Your task to perform on an android device: View the shopping cart on costco.com. Add usb-a to usb-b to the cart on costco.com Image 0: 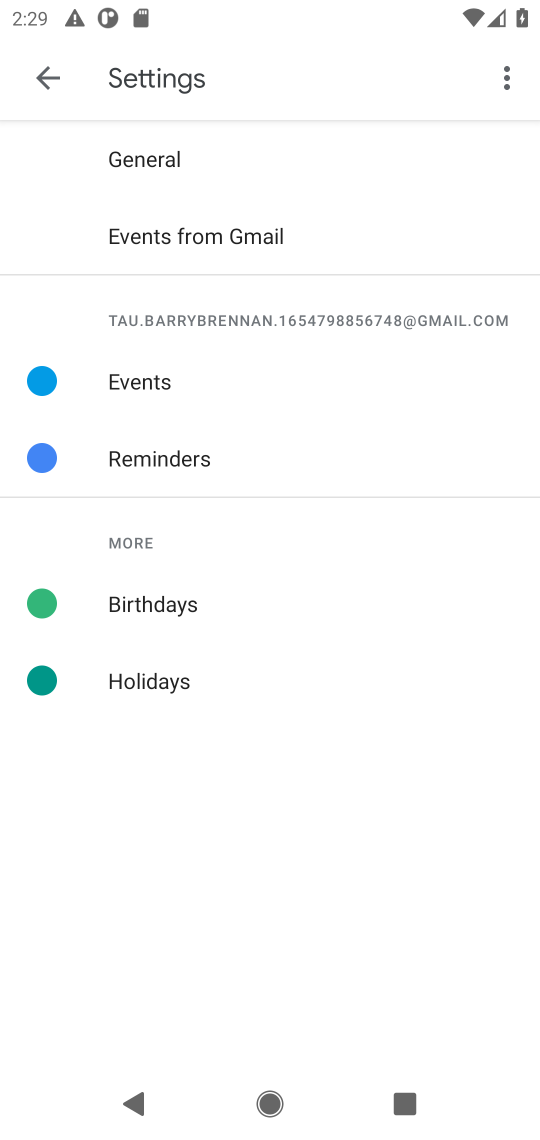
Step 0: press home button
Your task to perform on an android device: View the shopping cart on costco.com. Add usb-a to usb-b to the cart on costco.com Image 1: 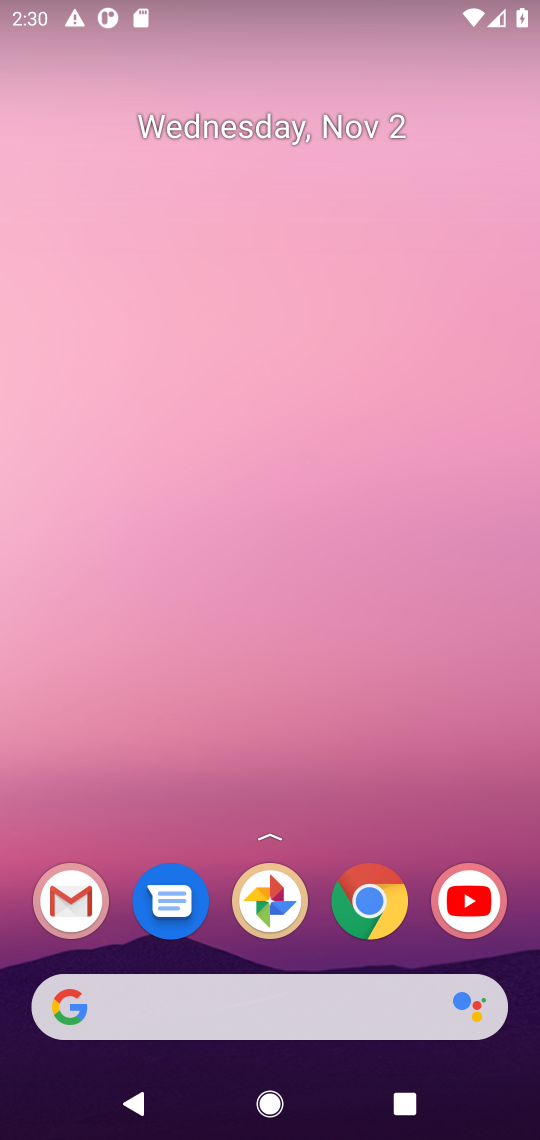
Step 1: drag from (322, 286) to (317, 141)
Your task to perform on an android device: View the shopping cart on costco.com. Add usb-a to usb-b to the cart on costco.com Image 2: 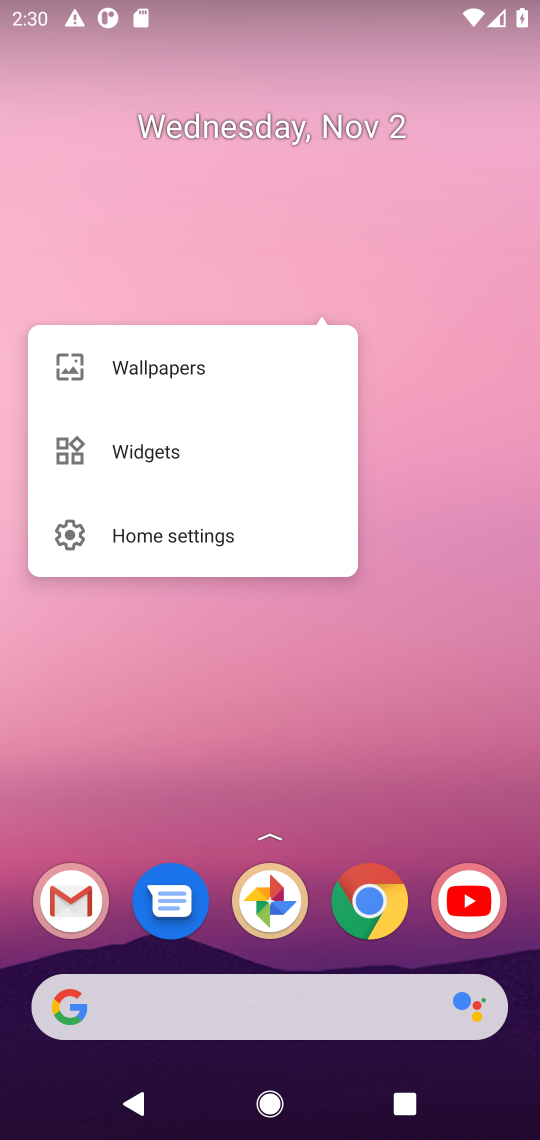
Step 2: drag from (315, 809) to (342, 86)
Your task to perform on an android device: View the shopping cart on costco.com. Add usb-a to usb-b to the cart on costco.com Image 3: 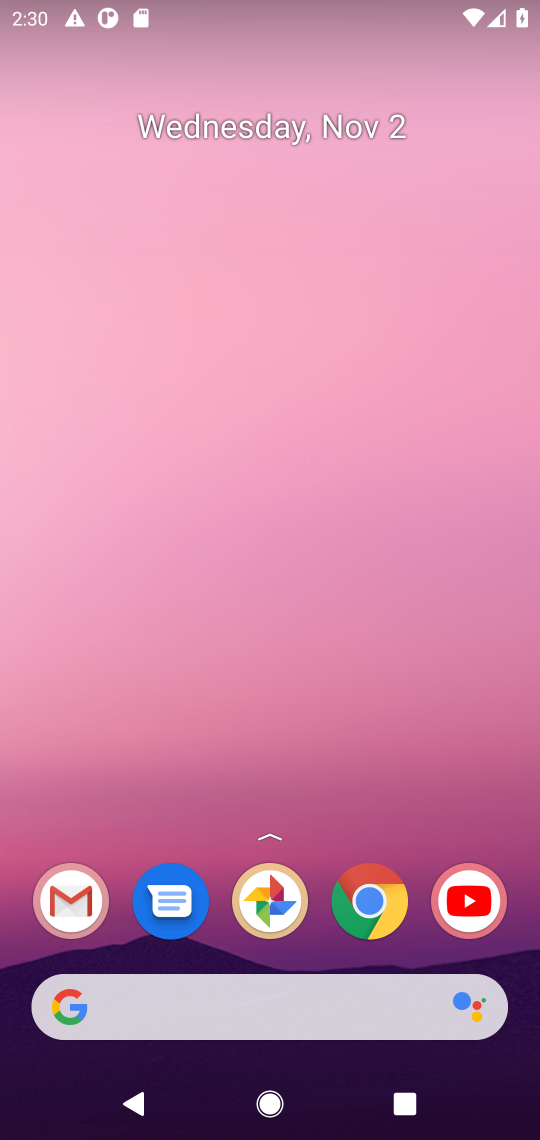
Step 3: drag from (336, 796) to (407, 137)
Your task to perform on an android device: View the shopping cart on costco.com. Add usb-a to usb-b to the cart on costco.com Image 4: 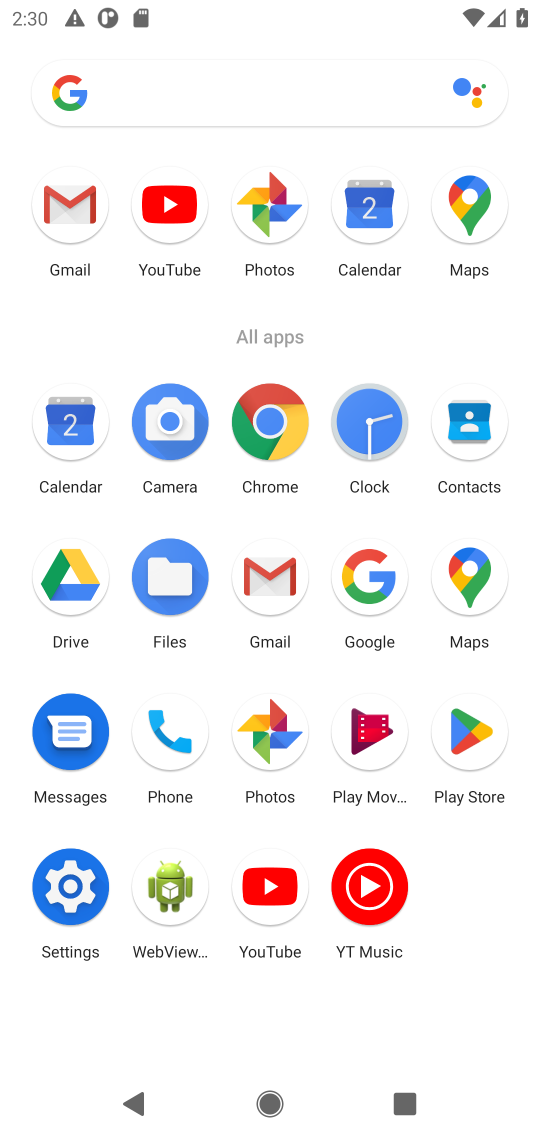
Step 4: click (271, 416)
Your task to perform on an android device: View the shopping cart on costco.com. Add usb-a to usb-b to the cart on costco.com Image 5: 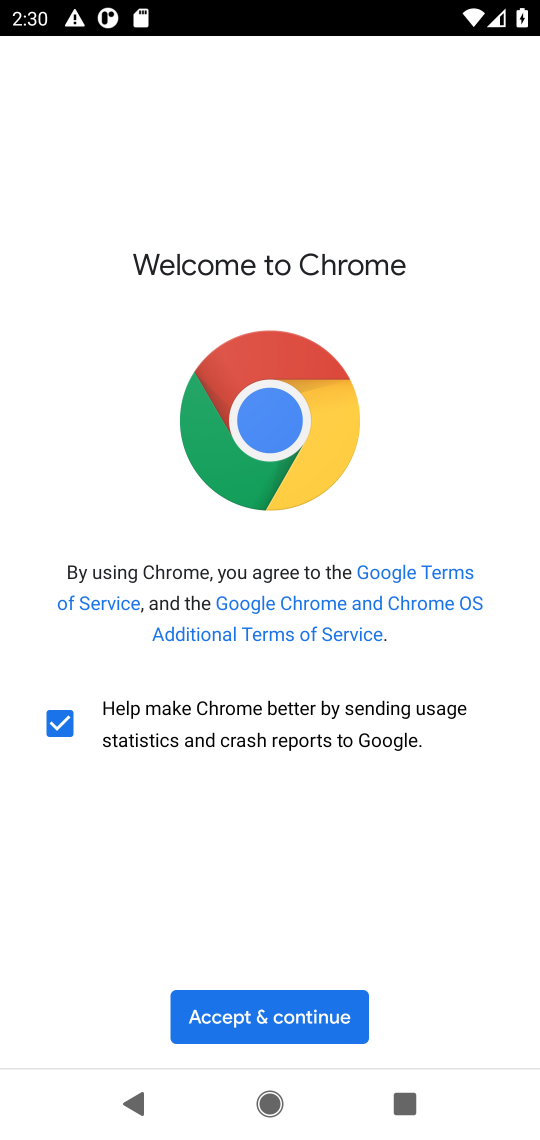
Step 5: click (275, 1010)
Your task to perform on an android device: View the shopping cart on costco.com. Add usb-a to usb-b to the cart on costco.com Image 6: 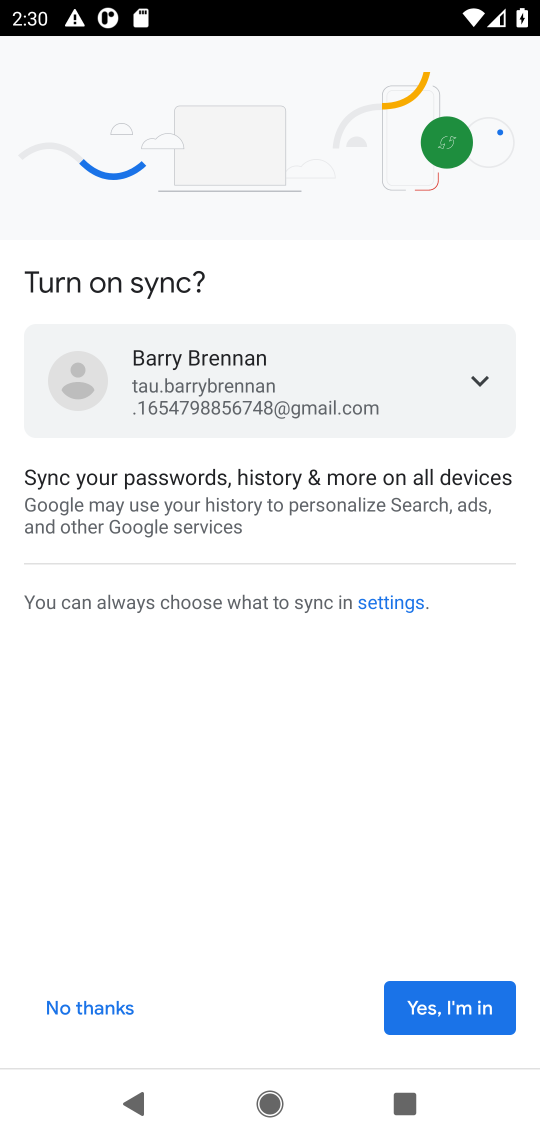
Step 6: click (447, 1003)
Your task to perform on an android device: View the shopping cart on costco.com. Add usb-a to usb-b to the cart on costco.com Image 7: 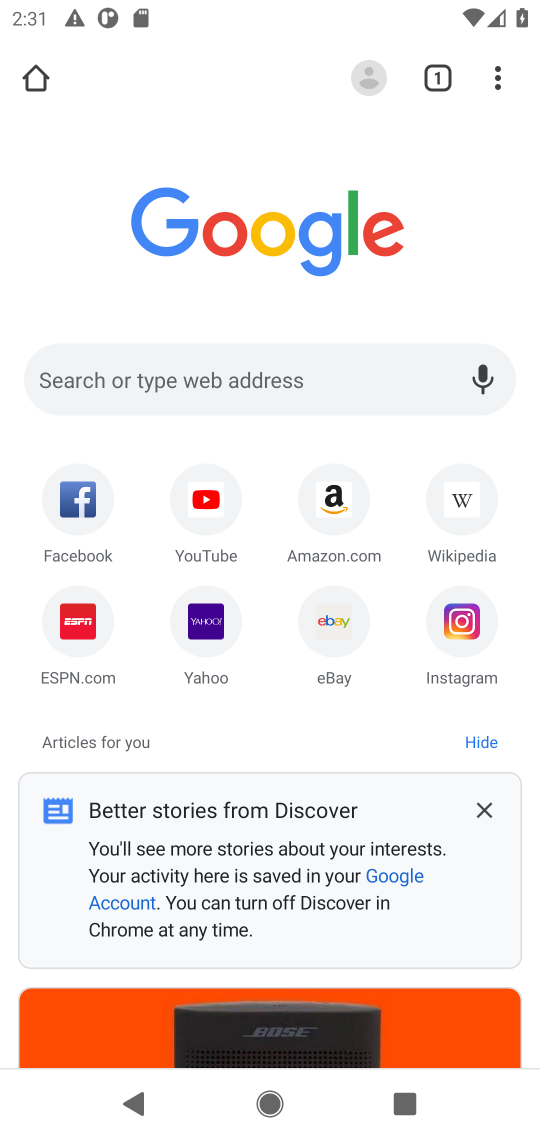
Step 7: click (173, 381)
Your task to perform on an android device: View the shopping cart on costco.com. Add usb-a to usb-b to the cart on costco.com Image 8: 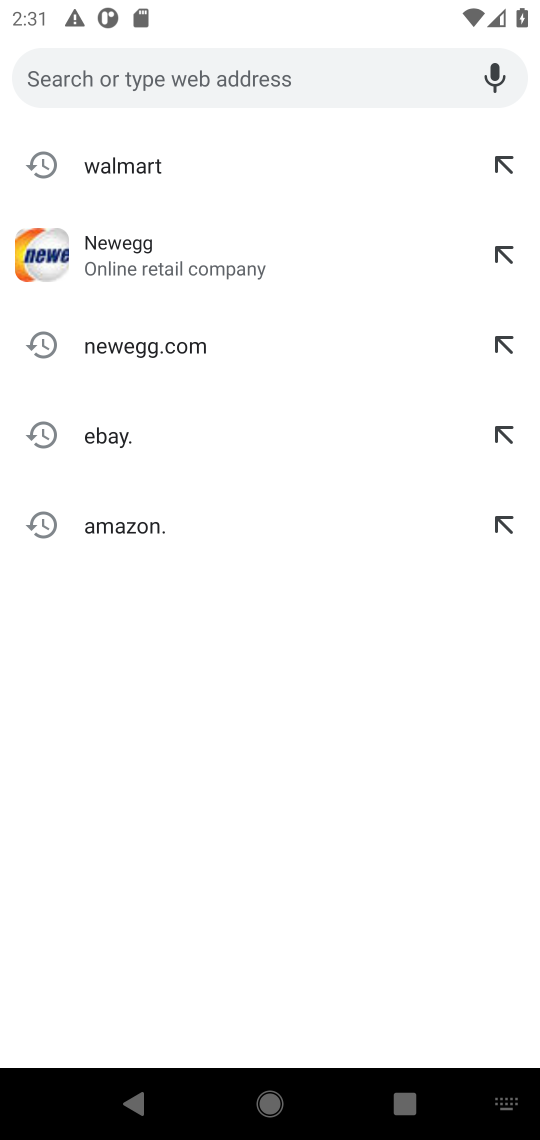
Step 8: type "costco"
Your task to perform on an android device: View the shopping cart on costco.com. Add usb-a to usb-b to the cart on costco.com Image 9: 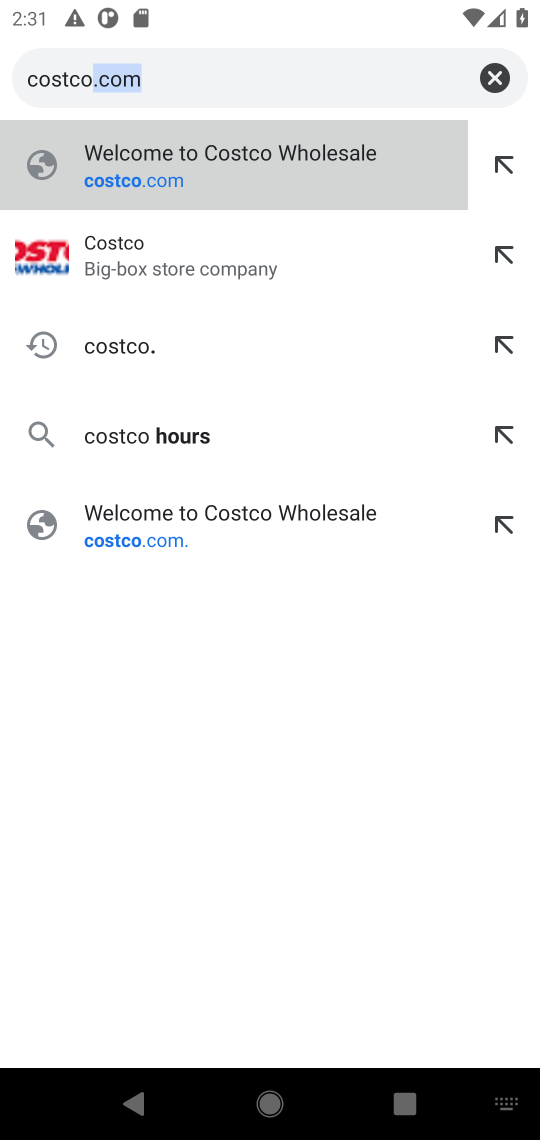
Step 9: type ""
Your task to perform on an android device: View the shopping cart on costco.com. Add usb-a to usb-b to the cart on costco.com Image 10: 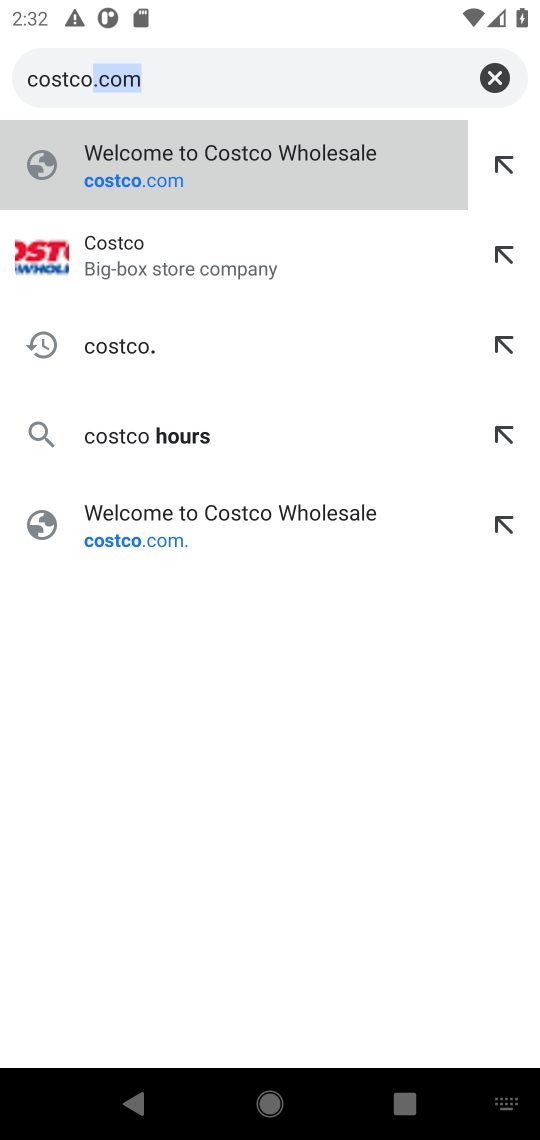
Step 10: click (112, 195)
Your task to perform on an android device: View the shopping cart on costco.com. Add usb-a to usb-b to the cart on costco.com Image 11: 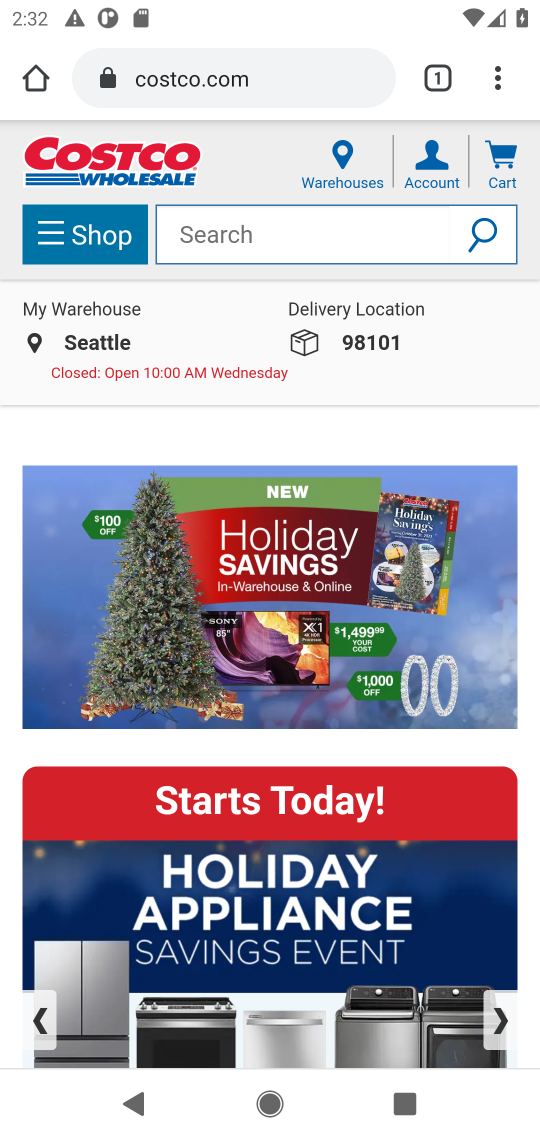
Step 11: click (213, 237)
Your task to perform on an android device: View the shopping cart on costco.com. Add usb-a to usb-b to the cart on costco.com Image 12: 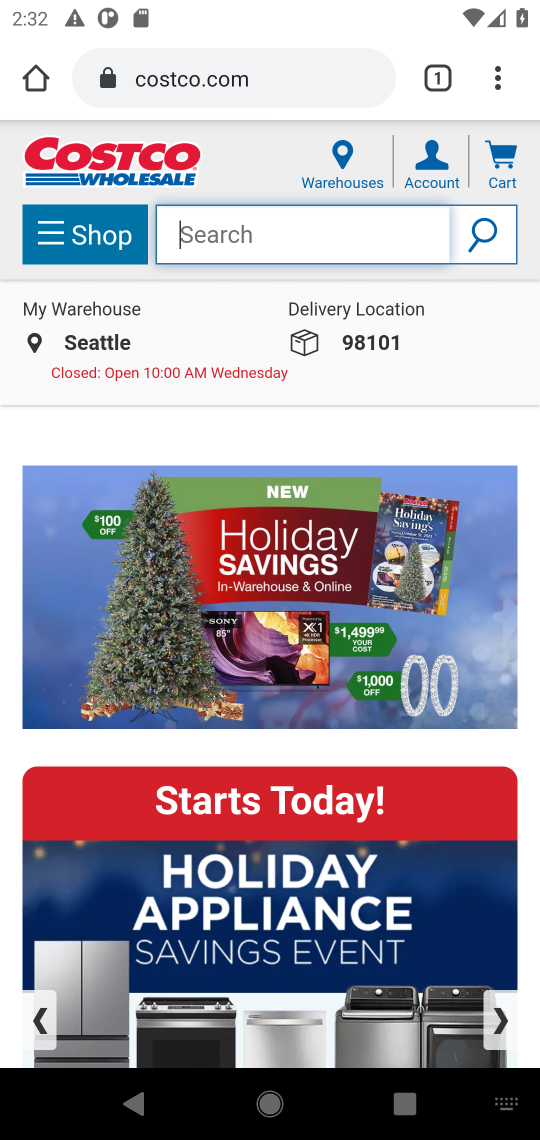
Step 12: type "usb-a to usb-b"
Your task to perform on an android device: View the shopping cart on costco.com. Add usb-a to usb-b to the cart on costco.com Image 13: 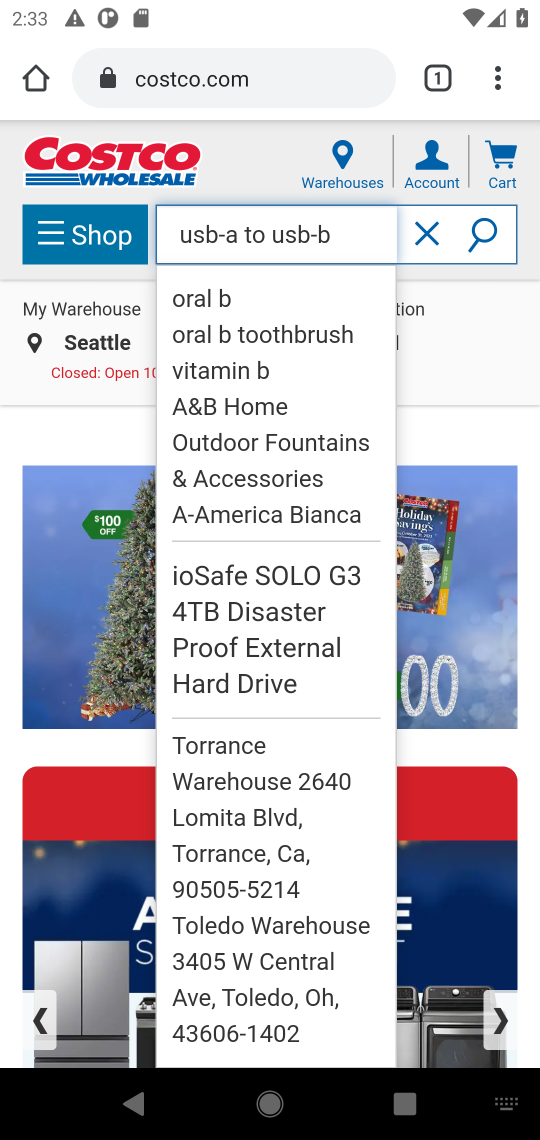
Step 13: task complete